Your task to perform on an android device: Open the map Image 0: 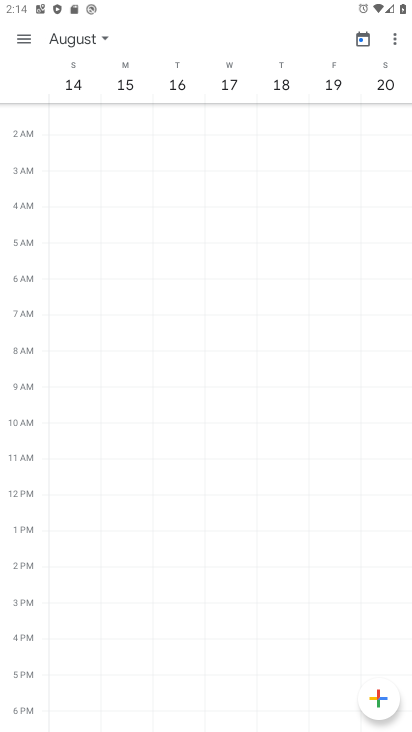
Step 0: press home button
Your task to perform on an android device: Open the map Image 1: 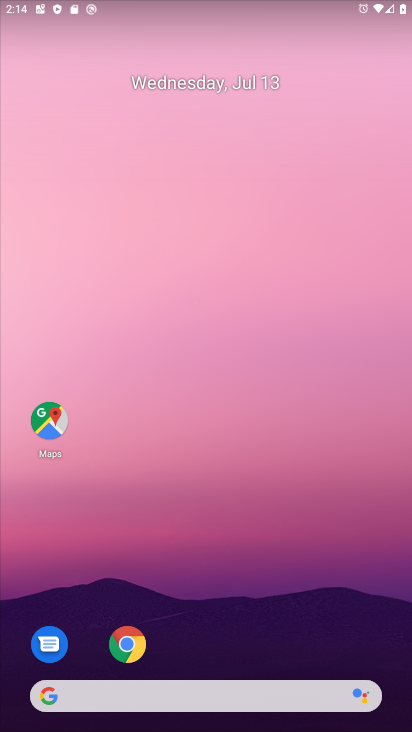
Step 1: drag from (229, 659) to (238, 125)
Your task to perform on an android device: Open the map Image 2: 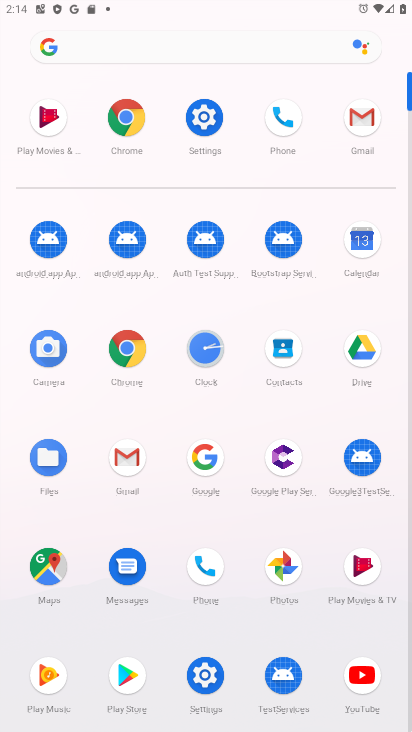
Step 2: click (52, 578)
Your task to perform on an android device: Open the map Image 3: 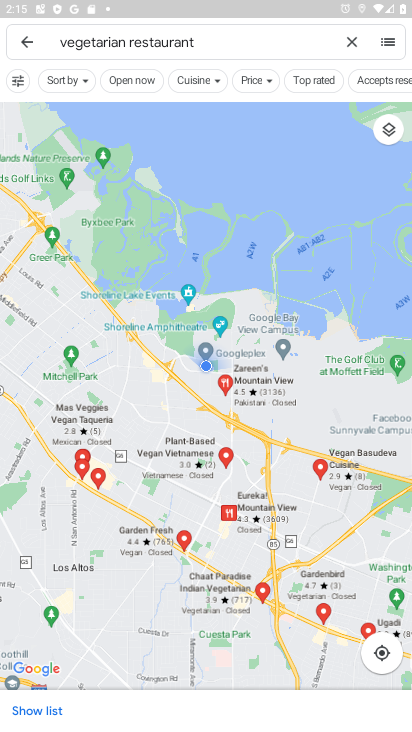
Step 3: task complete